Your task to perform on an android device: Open Yahoo.com Image 0: 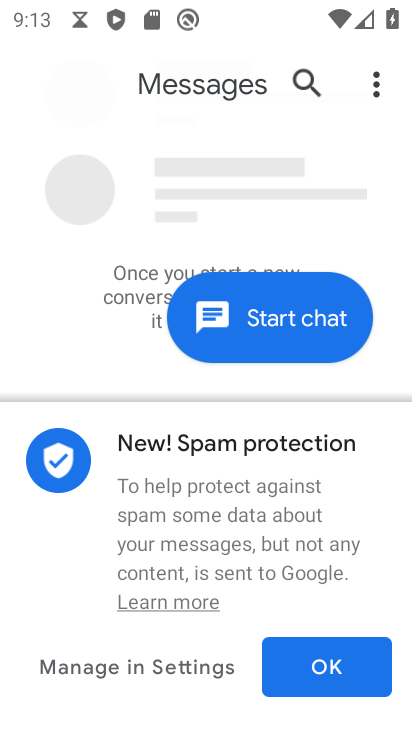
Step 0: press home button
Your task to perform on an android device: Open Yahoo.com Image 1: 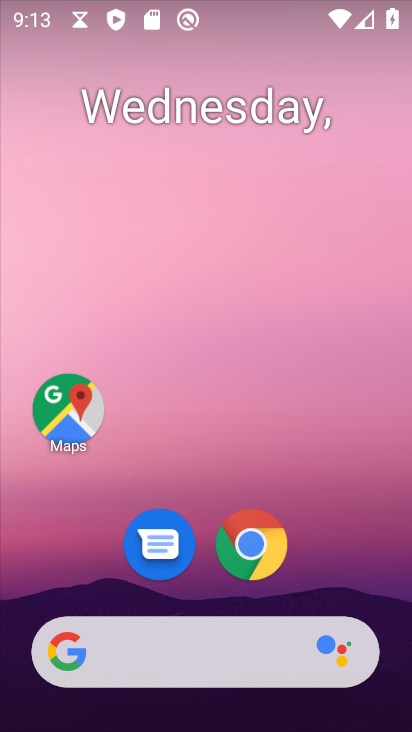
Step 1: drag from (173, 645) to (325, 27)
Your task to perform on an android device: Open Yahoo.com Image 2: 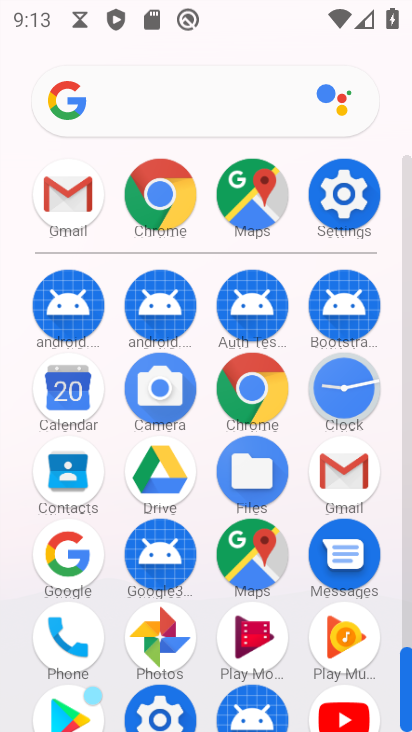
Step 2: click (162, 208)
Your task to perform on an android device: Open Yahoo.com Image 3: 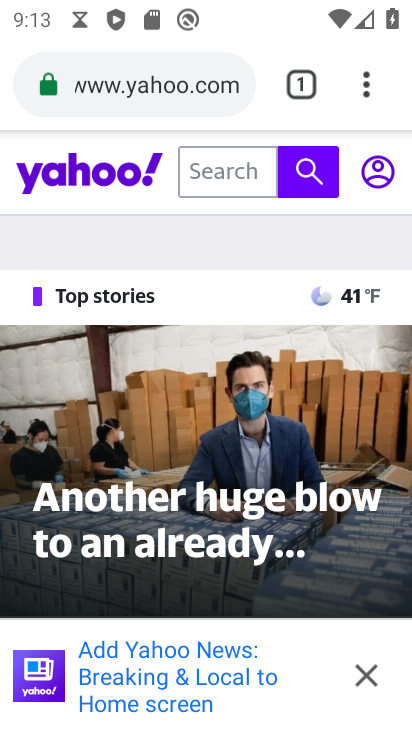
Step 3: task complete